Your task to perform on an android device: delete the emails in spam in the gmail app Image 0: 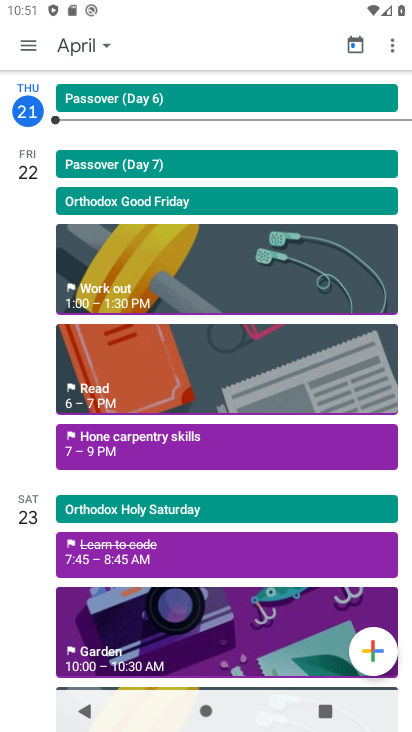
Step 0: press home button
Your task to perform on an android device: delete the emails in spam in the gmail app Image 1: 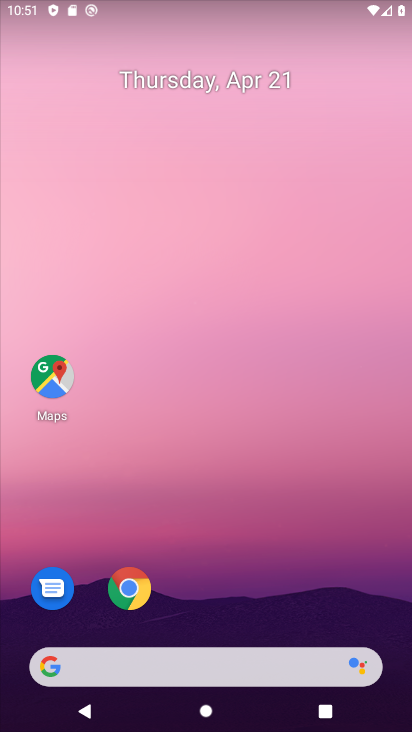
Step 1: drag from (212, 557) to (268, 149)
Your task to perform on an android device: delete the emails in spam in the gmail app Image 2: 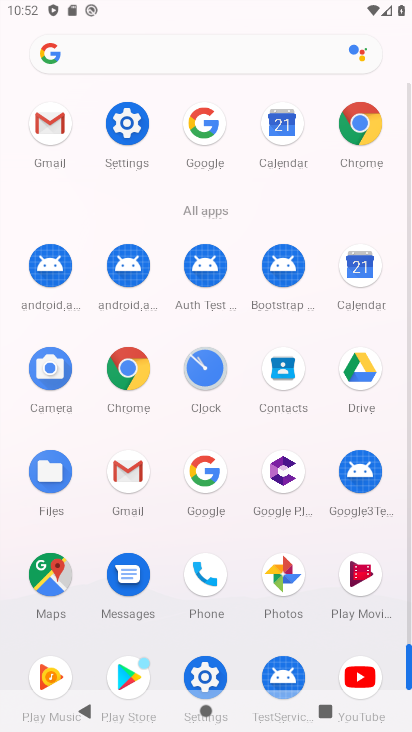
Step 2: click (53, 138)
Your task to perform on an android device: delete the emails in spam in the gmail app Image 3: 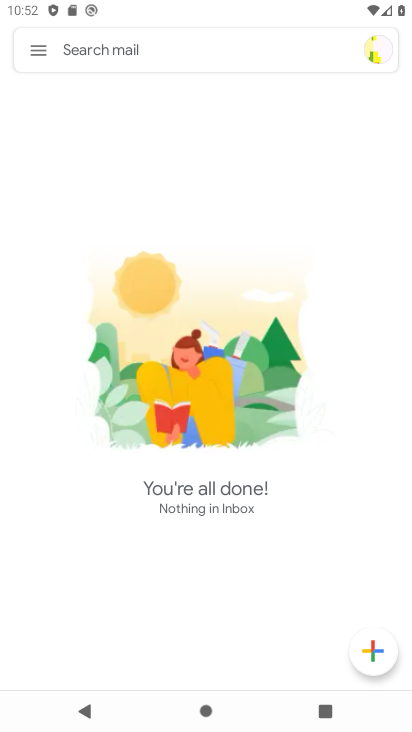
Step 3: click (45, 51)
Your task to perform on an android device: delete the emails in spam in the gmail app Image 4: 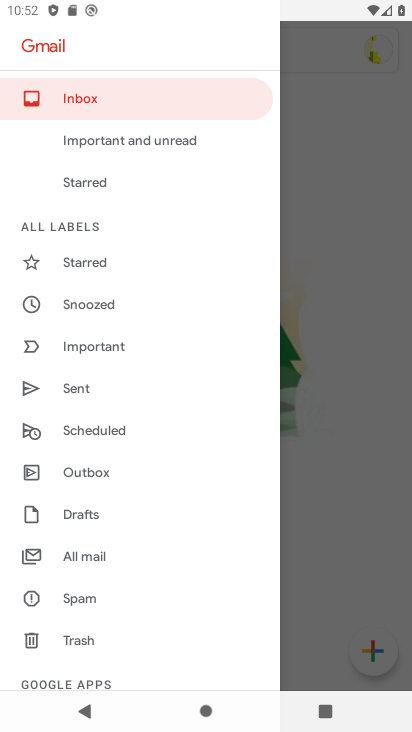
Step 4: click (96, 599)
Your task to perform on an android device: delete the emails in spam in the gmail app Image 5: 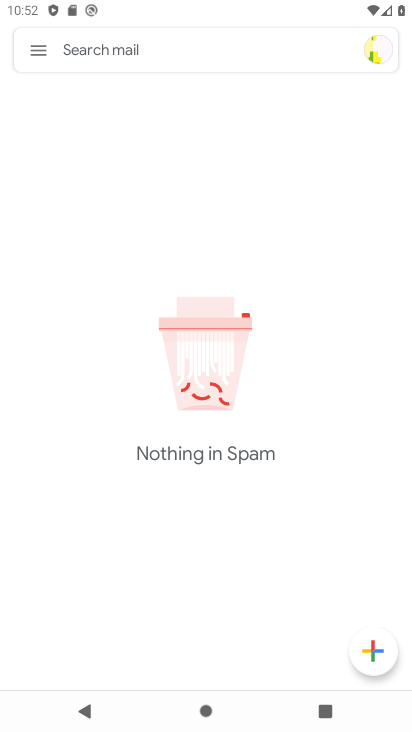
Step 5: click (175, 390)
Your task to perform on an android device: delete the emails in spam in the gmail app Image 6: 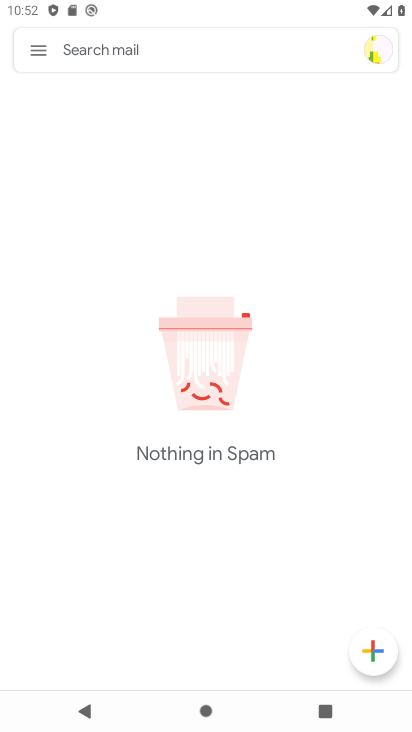
Step 6: task complete